Your task to perform on an android device: Open Google Maps Image 0: 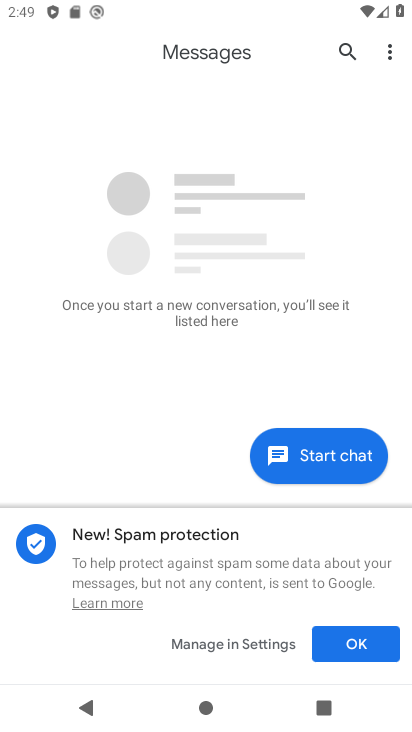
Step 0: press home button
Your task to perform on an android device: Open Google Maps Image 1: 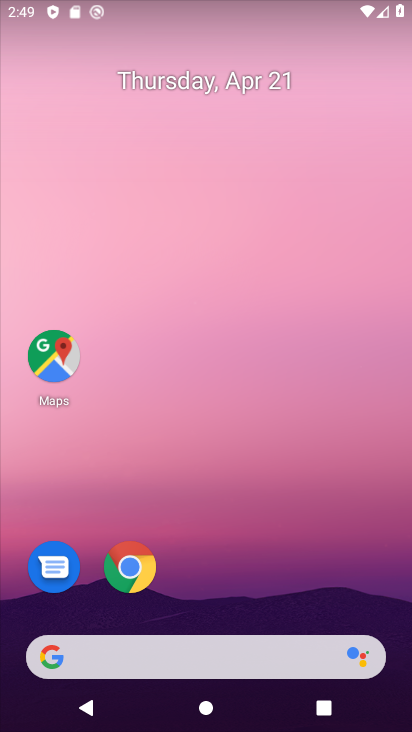
Step 1: click (52, 366)
Your task to perform on an android device: Open Google Maps Image 2: 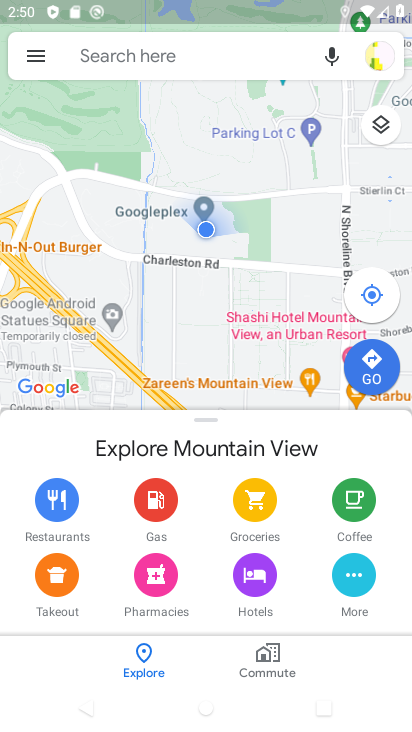
Step 2: task complete